Your task to perform on an android device: Open sound settings Image 0: 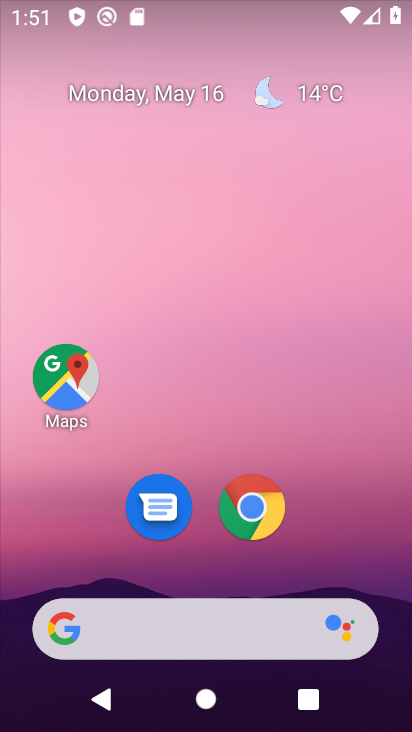
Step 0: drag from (257, 583) to (261, 242)
Your task to perform on an android device: Open sound settings Image 1: 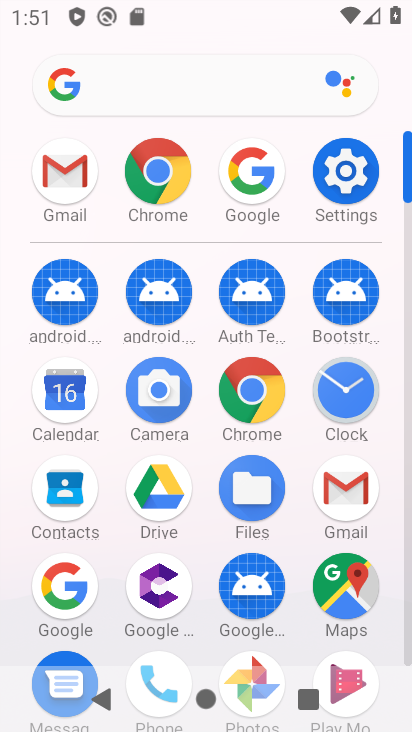
Step 1: click (346, 186)
Your task to perform on an android device: Open sound settings Image 2: 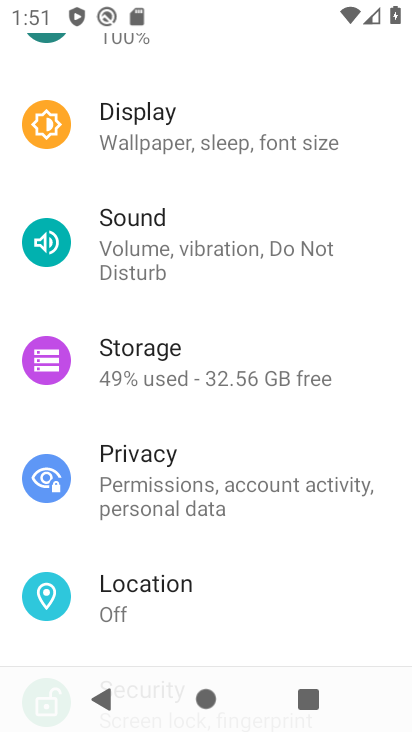
Step 2: click (269, 246)
Your task to perform on an android device: Open sound settings Image 3: 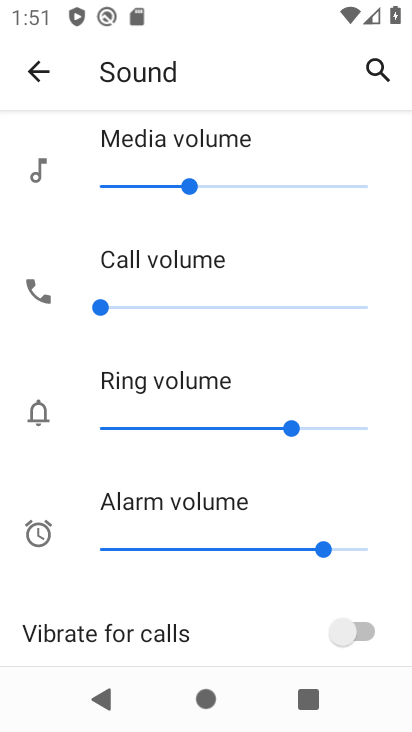
Step 3: task complete